Your task to perform on an android device: change the clock display to digital Image 0: 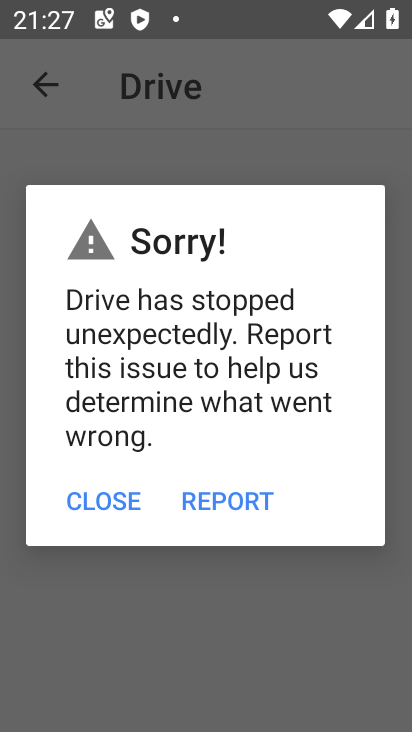
Step 0: press home button
Your task to perform on an android device: change the clock display to digital Image 1: 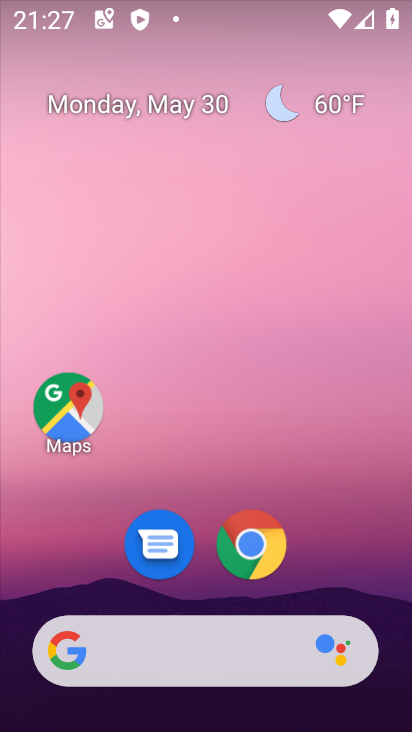
Step 1: drag from (348, 561) to (304, 92)
Your task to perform on an android device: change the clock display to digital Image 2: 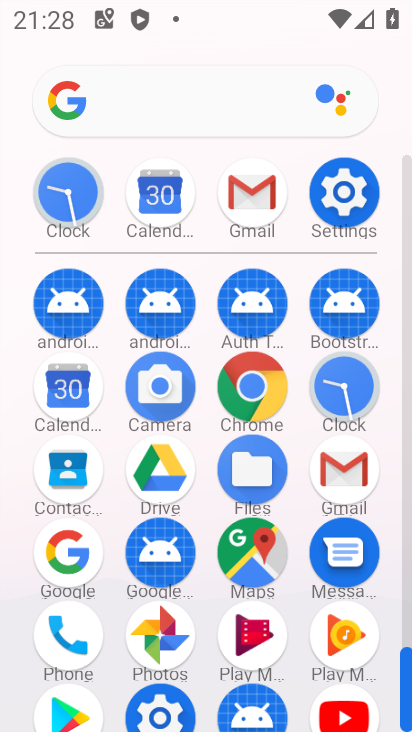
Step 2: click (68, 191)
Your task to perform on an android device: change the clock display to digital Image 3: 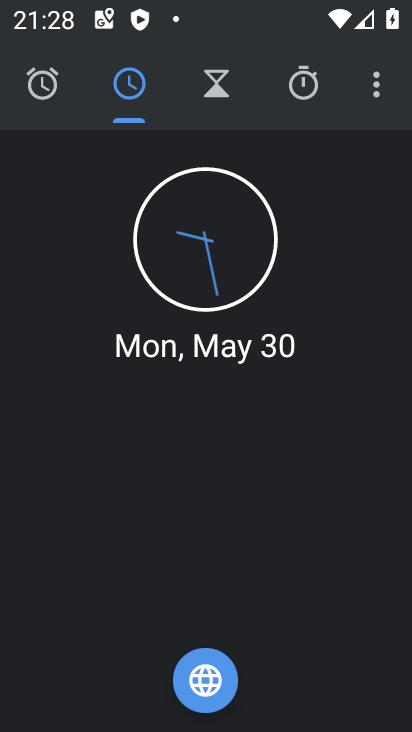
Step 3: click (373, 83)
Your task to perform on an android device: change the clock display to digital Image 4: 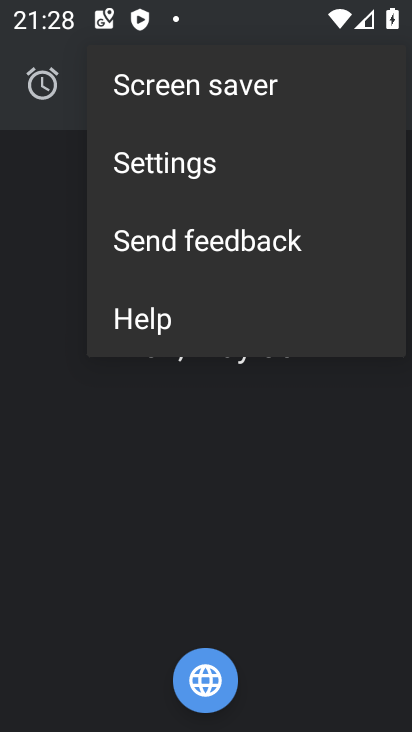
Step 4: click (210, 153)
Your task to perform on an android device: change the clock display to digital Image 5: 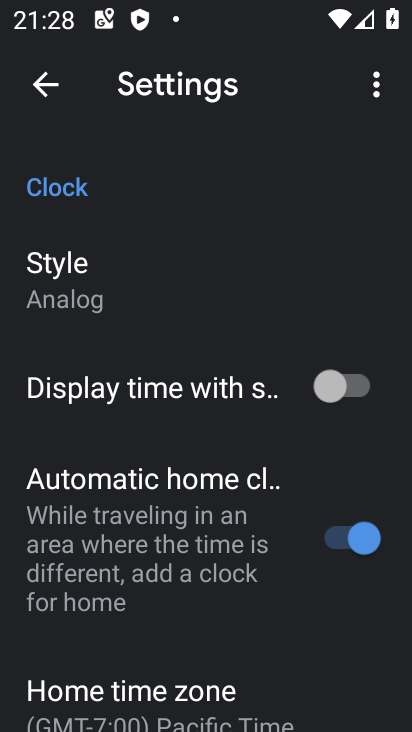
Step 5: click (84, 285)
Your task to perform on an android device: change the clock display to digital Image 6: 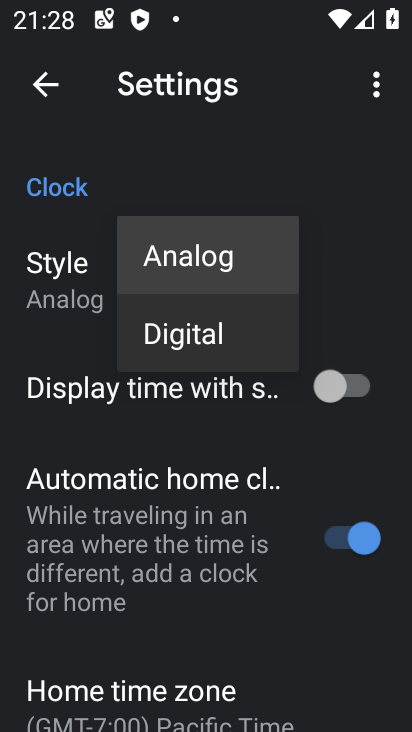
Step 6: click (190, 342)
Your task to perform on an android device: change the clock display to digital Image 7: 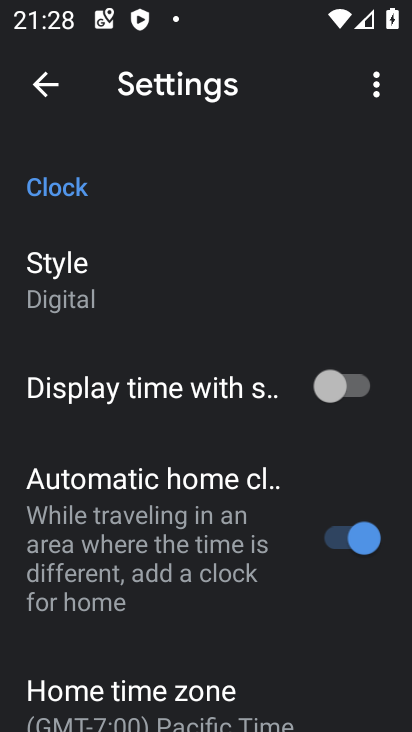
Step 7: task complete